Your task to perform on an android device: refresh tabs in the chrome app Image 0: 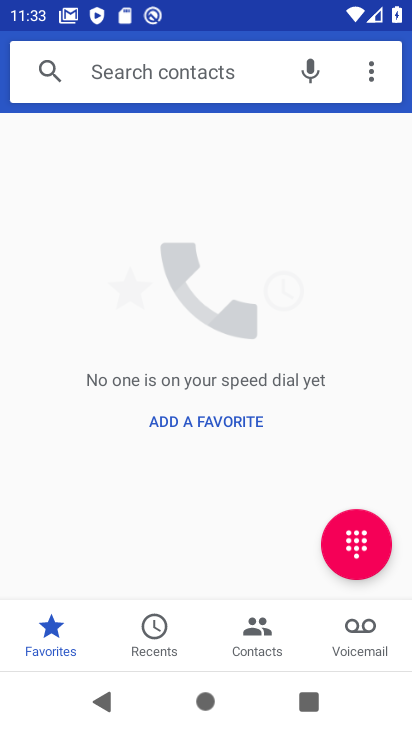
Step 0: press home button
Your task to perform on an android device: refresh tabs in the chrome app Image 1: 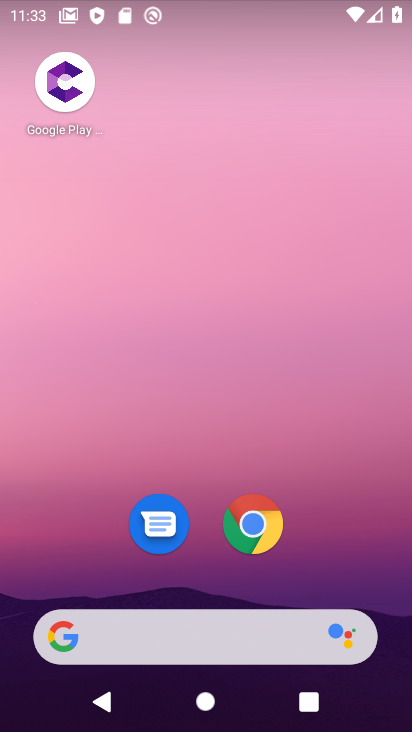
Step 1: click (266, 519)
Your task to perform on an android device: refresh tabs in the chrome app Image 2: 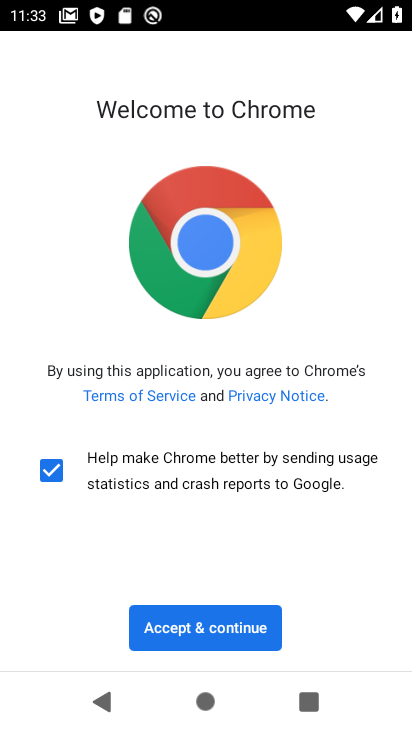
Step 2: click (211, 621)
Your task to perform on an android device: refresh tabs in the chrome app Image 3: 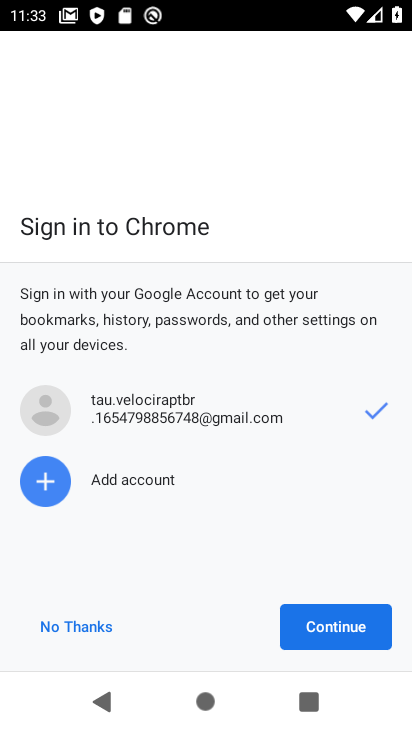
Step 3: click (335, 630)
Your task to perform on an android device: refresh tabs in the chrome app Image 4: 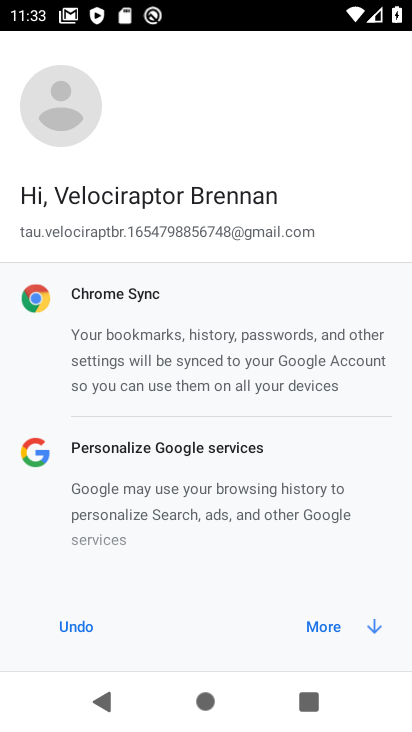
Step 4: click (335, 630)
Your task to perform on an android device: refresh tabs in the chrome app Image 5: 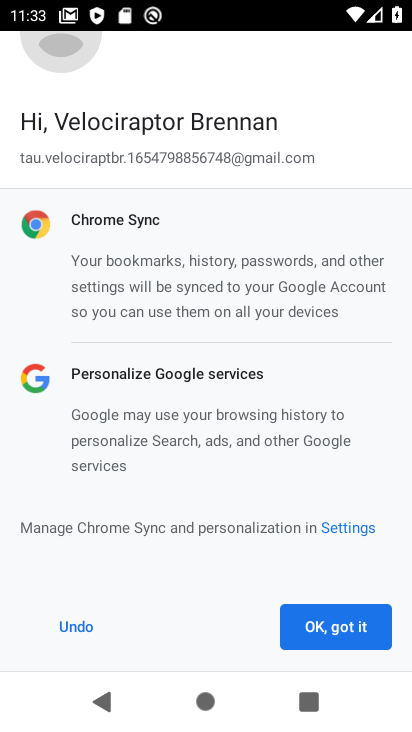
Step 5: click (335, 630)
Your task to perform on an android device: refresh tabs in the chrome app Image 6: 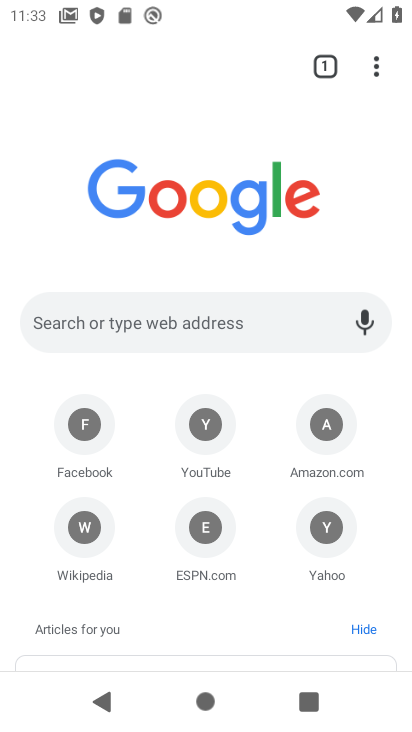
Step 6: click (387, 57)
Your task to perform on an android device: refresh tabs in the chrome app Image 7: 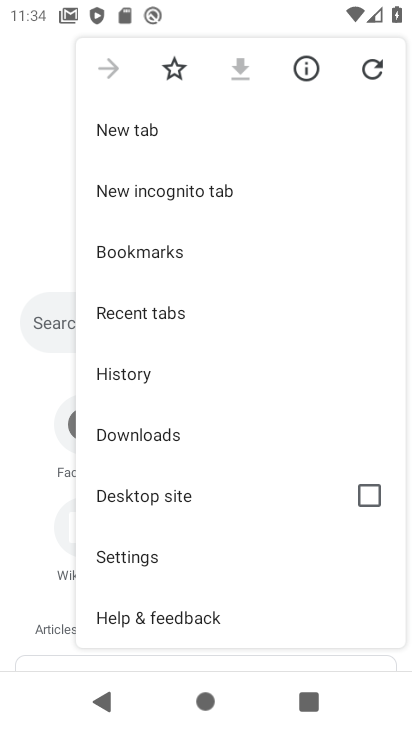
Step 7: click (387, 57)
Your task to perform on an android device: refresh tabs in the chrome app Image 8: 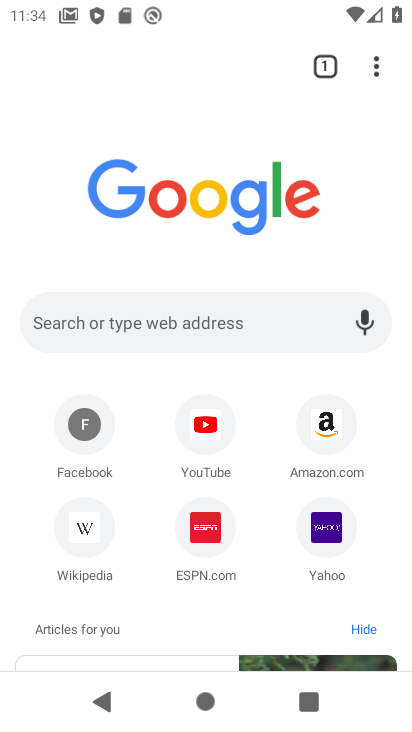
Step 8: click (387, 57)
Your task to perform on an android device: refresh tabs in the chrome app Image 9: 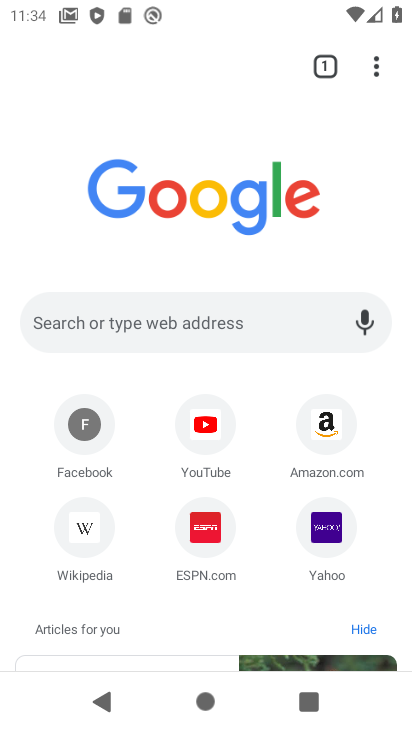
Step 9: click (381, 66)
Your task to perform on an android device: refresh tabs in the chrome app Image 10: 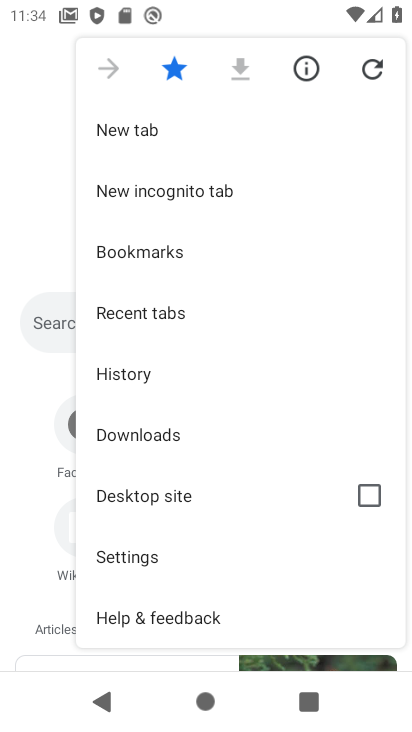
Step 10: click (377, 68)
Your task to perform on an android device: refresh tabs in the chrome app Image 11: 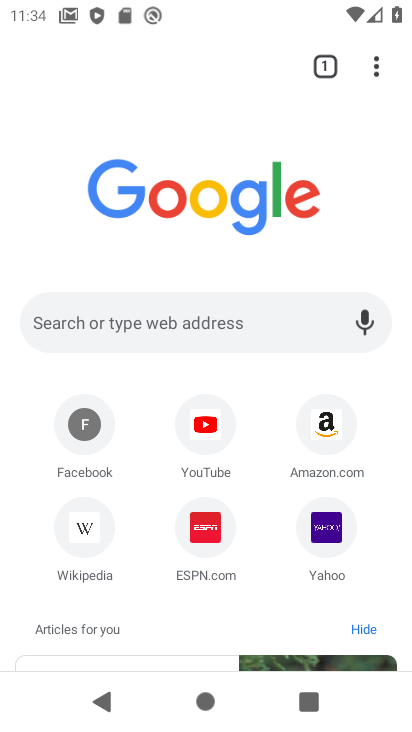
Step 11: task complete